Your task to perform on an android device: install app "WhatsApp Messenger" Image 0: 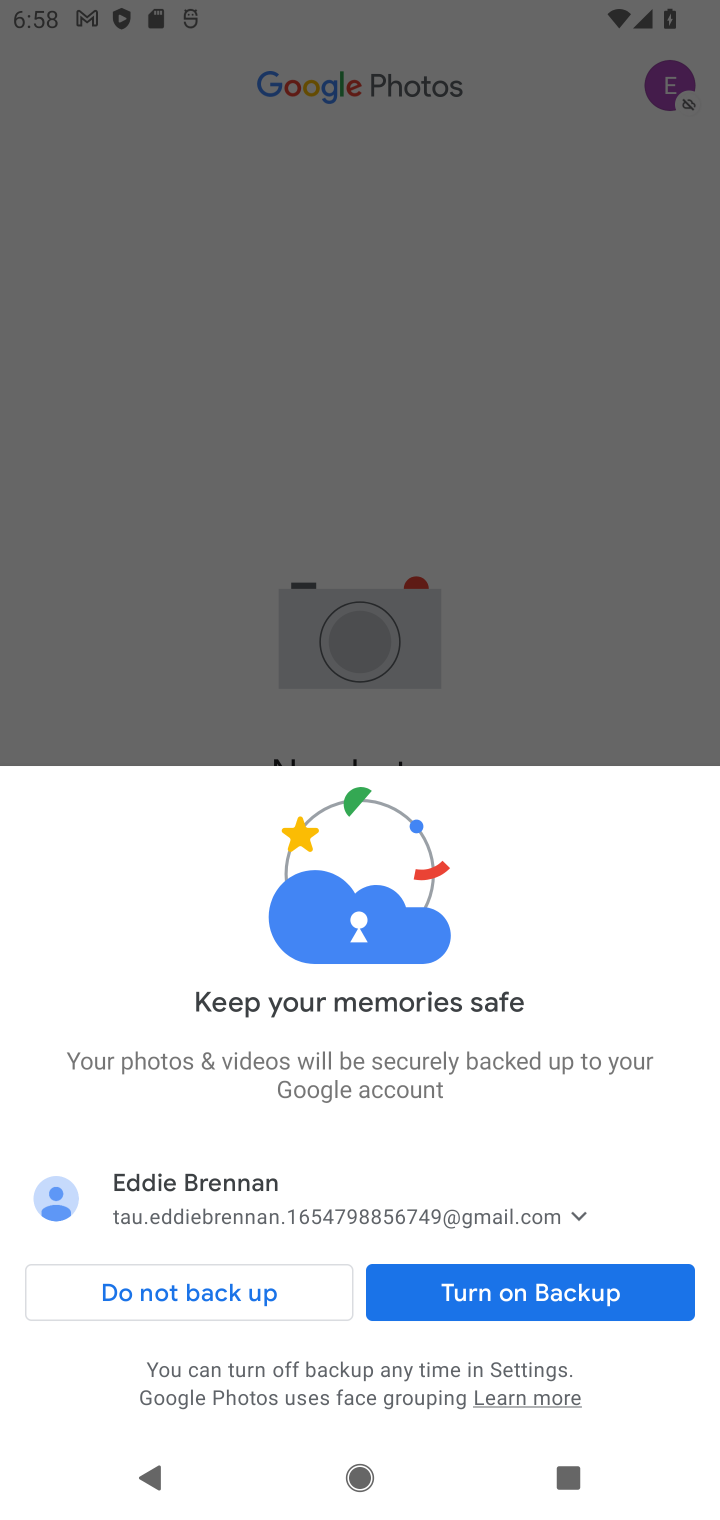
Step 0: press home button
Your task to perform on an android device: install app "WhatsApp Messenger" Image 1: 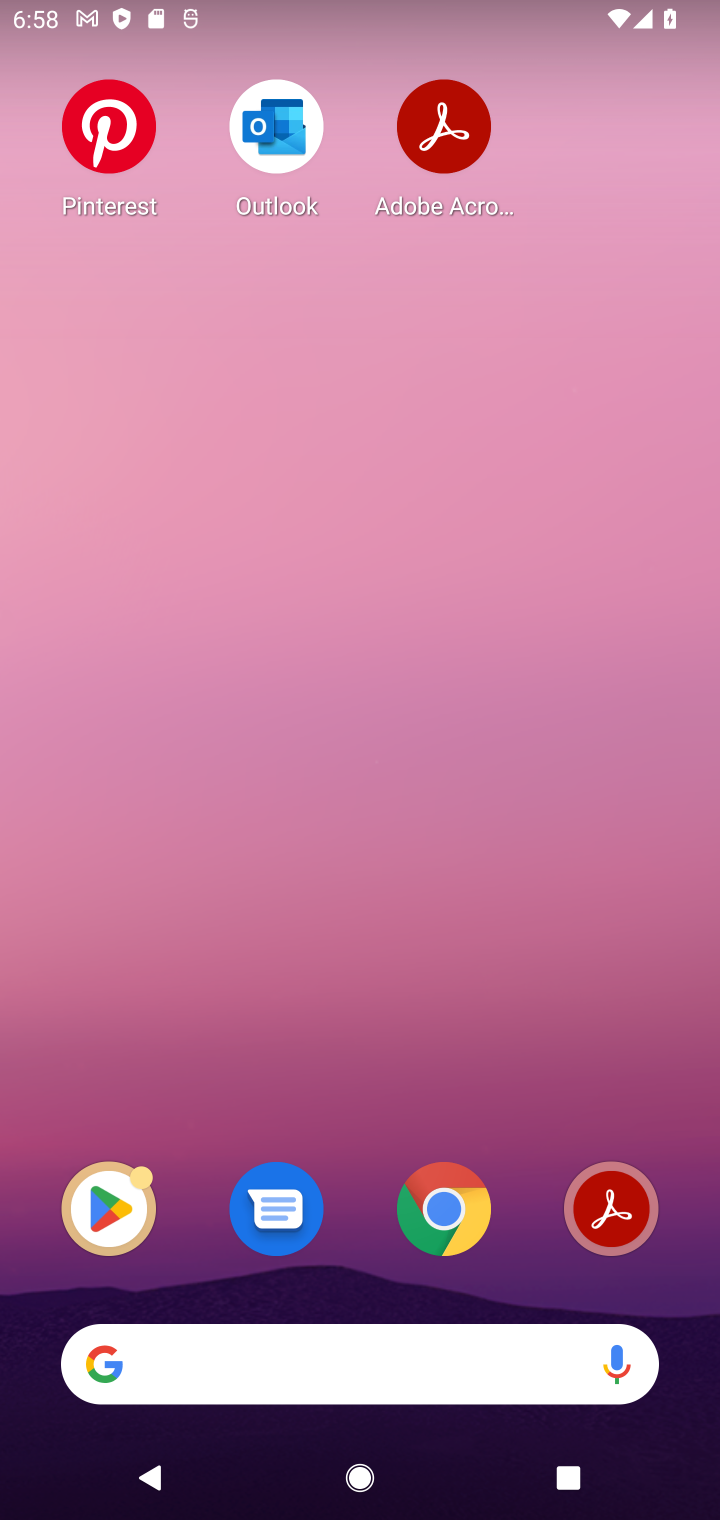
Step 1: drag from (394, 1304) to (394, 932)
Your task to perform on an android device: install app "WhatsApp Messenger" Image 2: 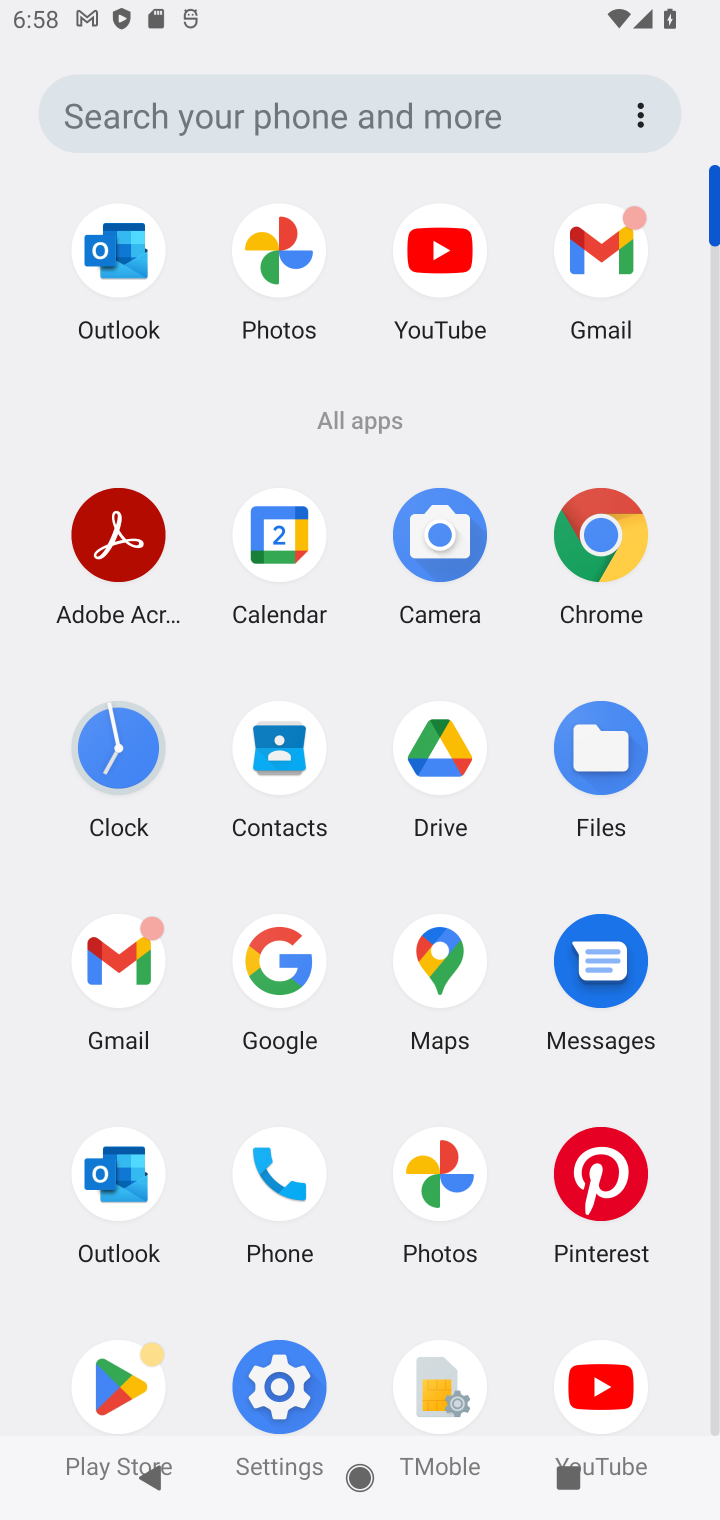
Step 2: click (107, 1387)
Your task to perform on an android device: install app "WhatsApp Messenger" Image 3: 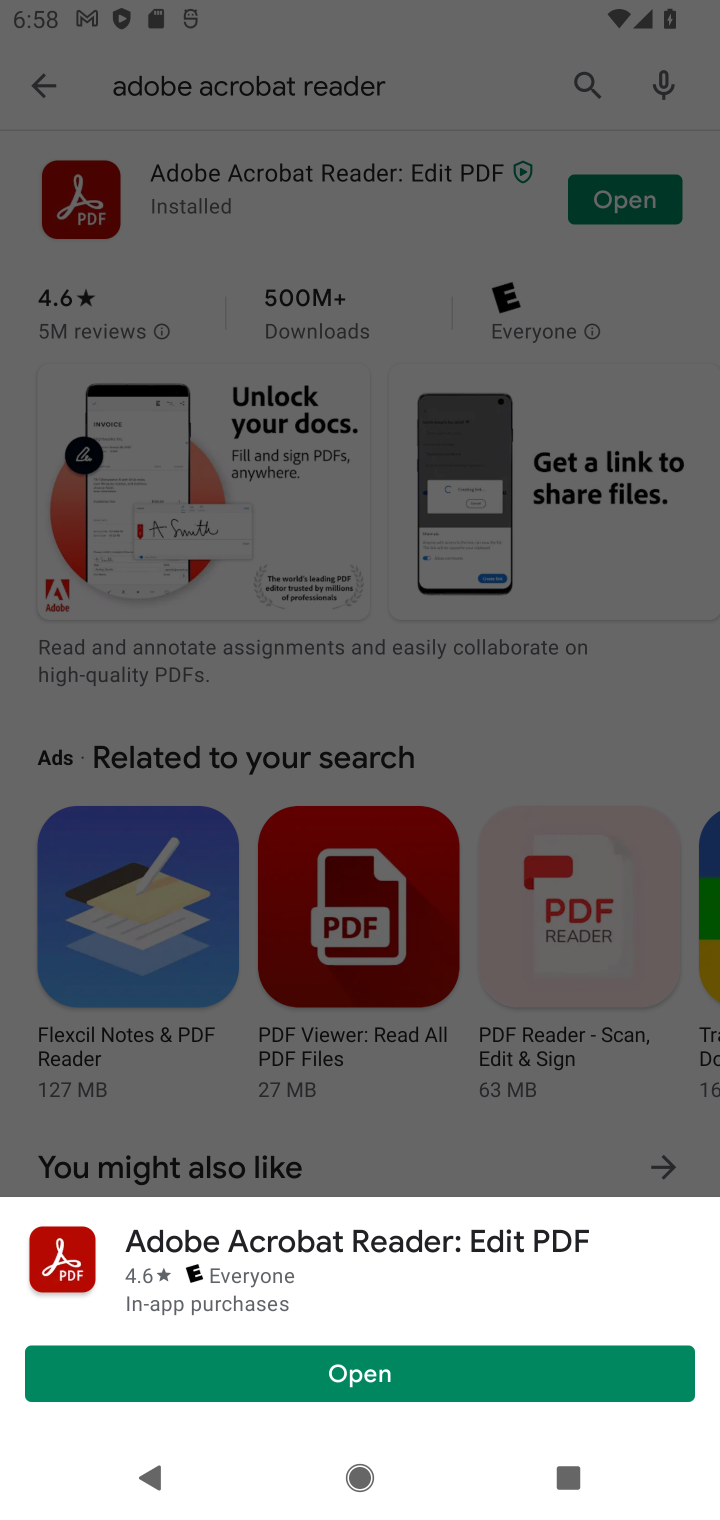
Step 3: click (578, 87)
Your task to perform on an android device: install app "WhatsApp Messenger" Image 4: 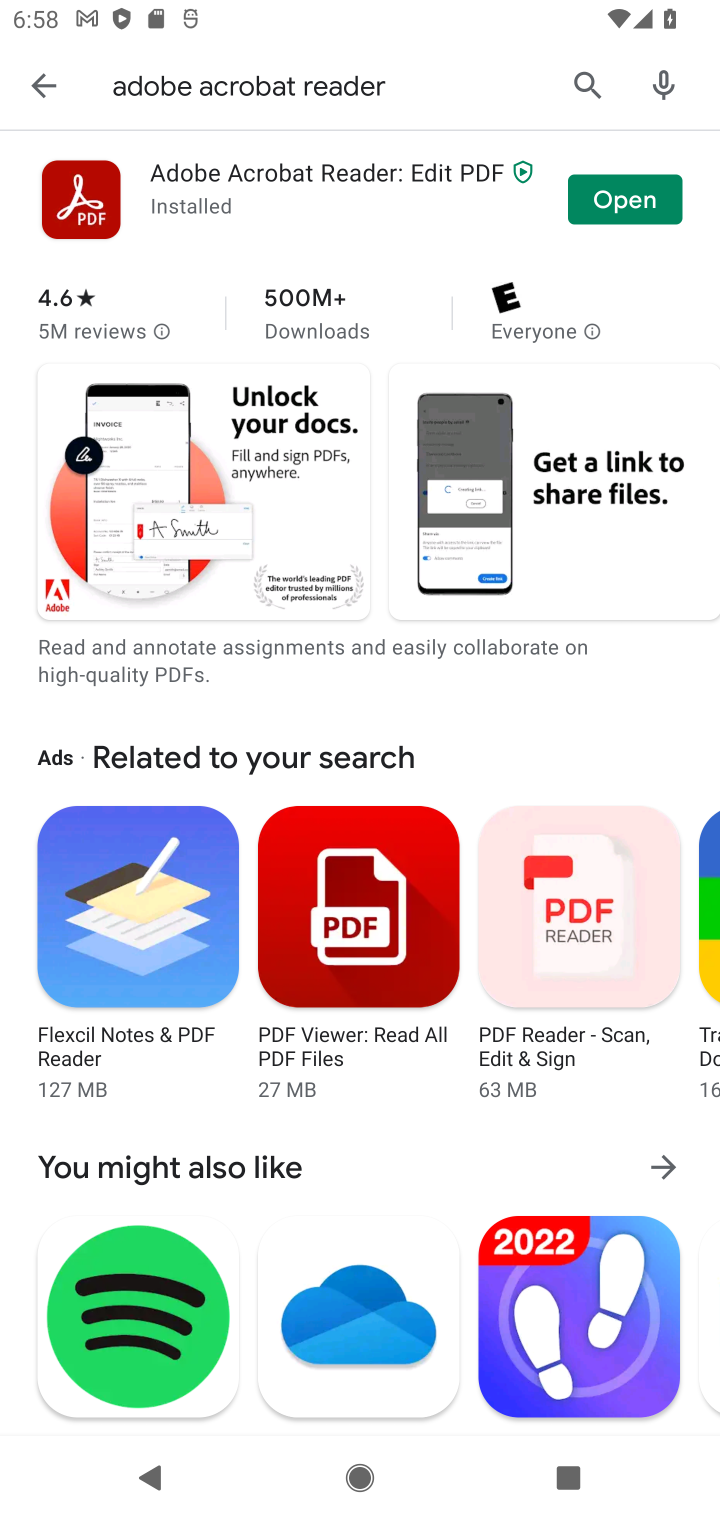
Step 4: click (578, 87)
Your task to perform on an android device: install app "WhatsApp Messenger" Image 5: 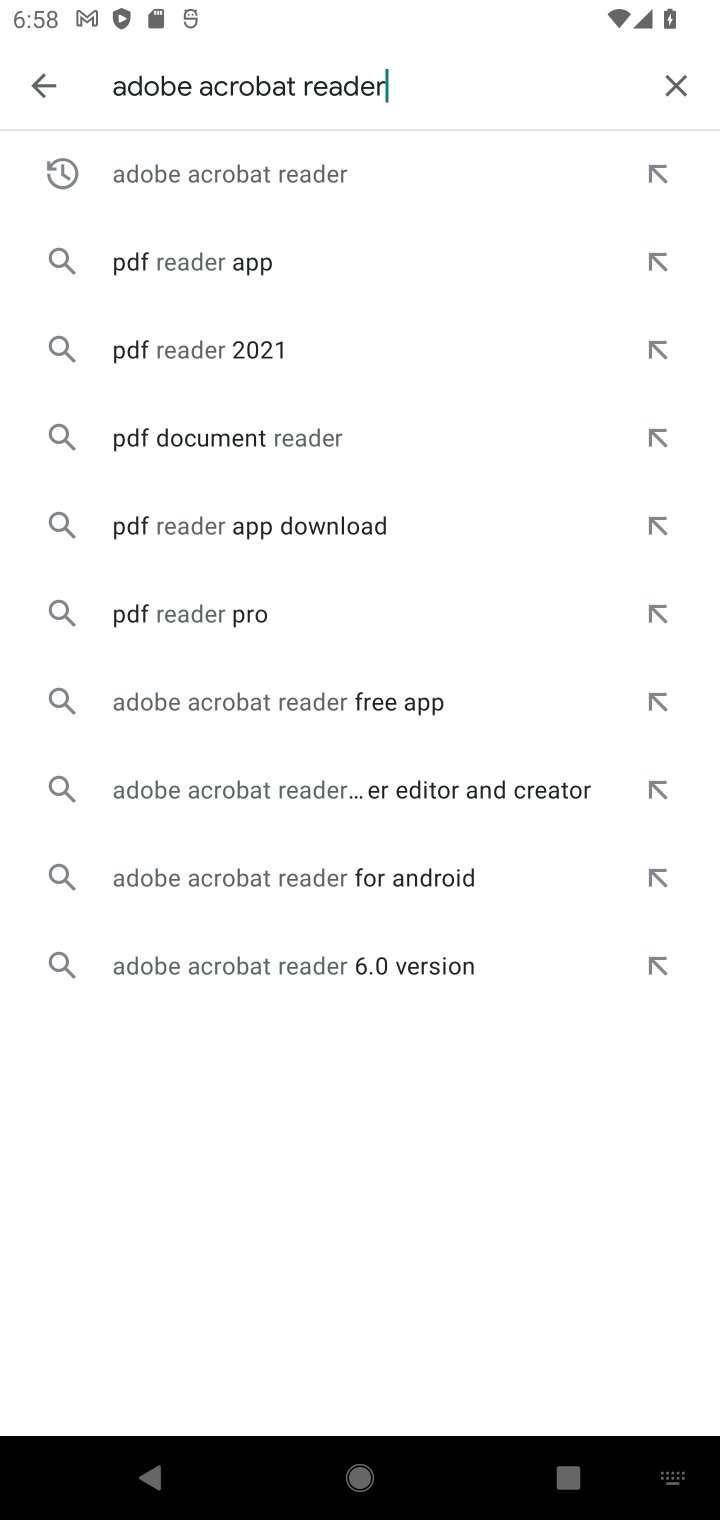
Step 5: click (679, 80)
Your task to perform on an android device: install app "WhatsApp Messenger" Image 6: 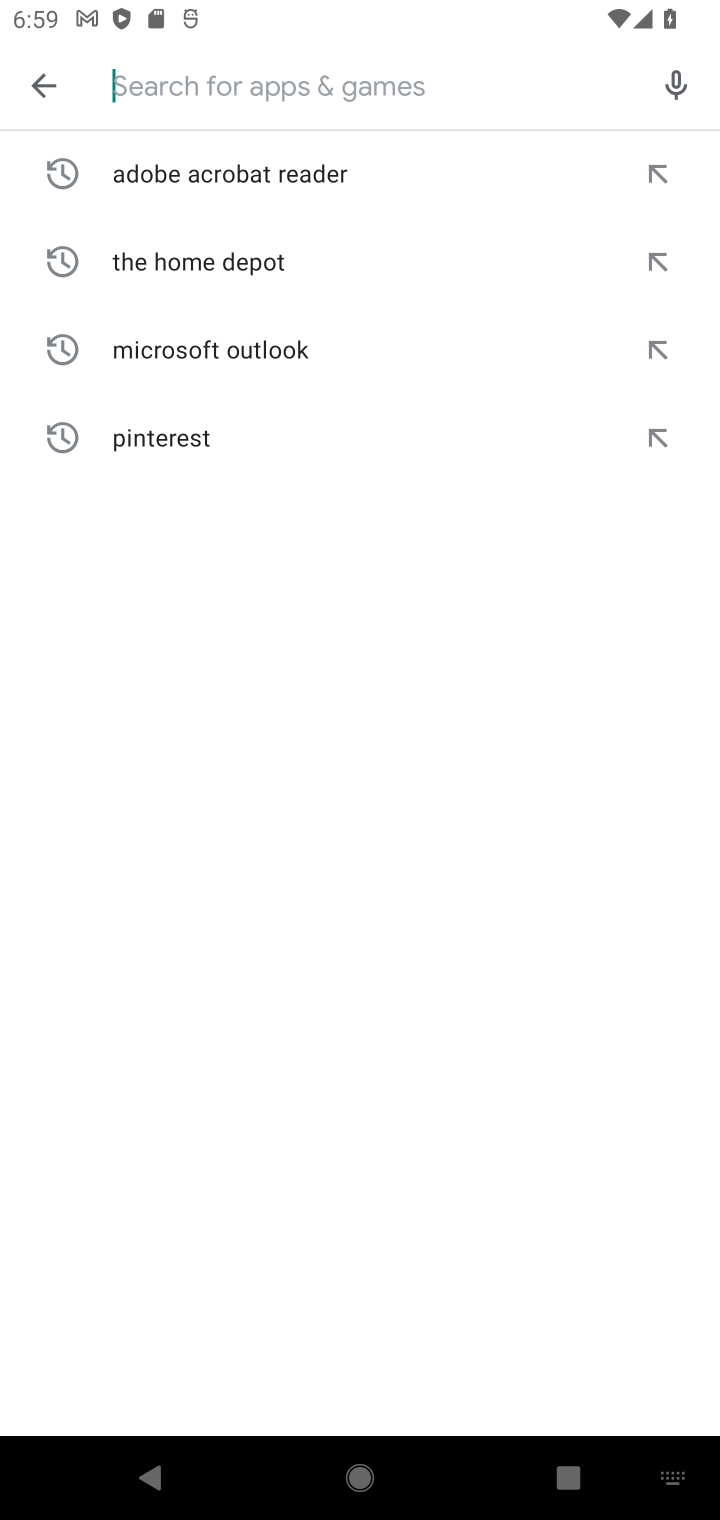
Step 6: type "WhatsApp Messenge"
Your task to perform on an android device: install app "WhatsApp Messenger" Image 7: 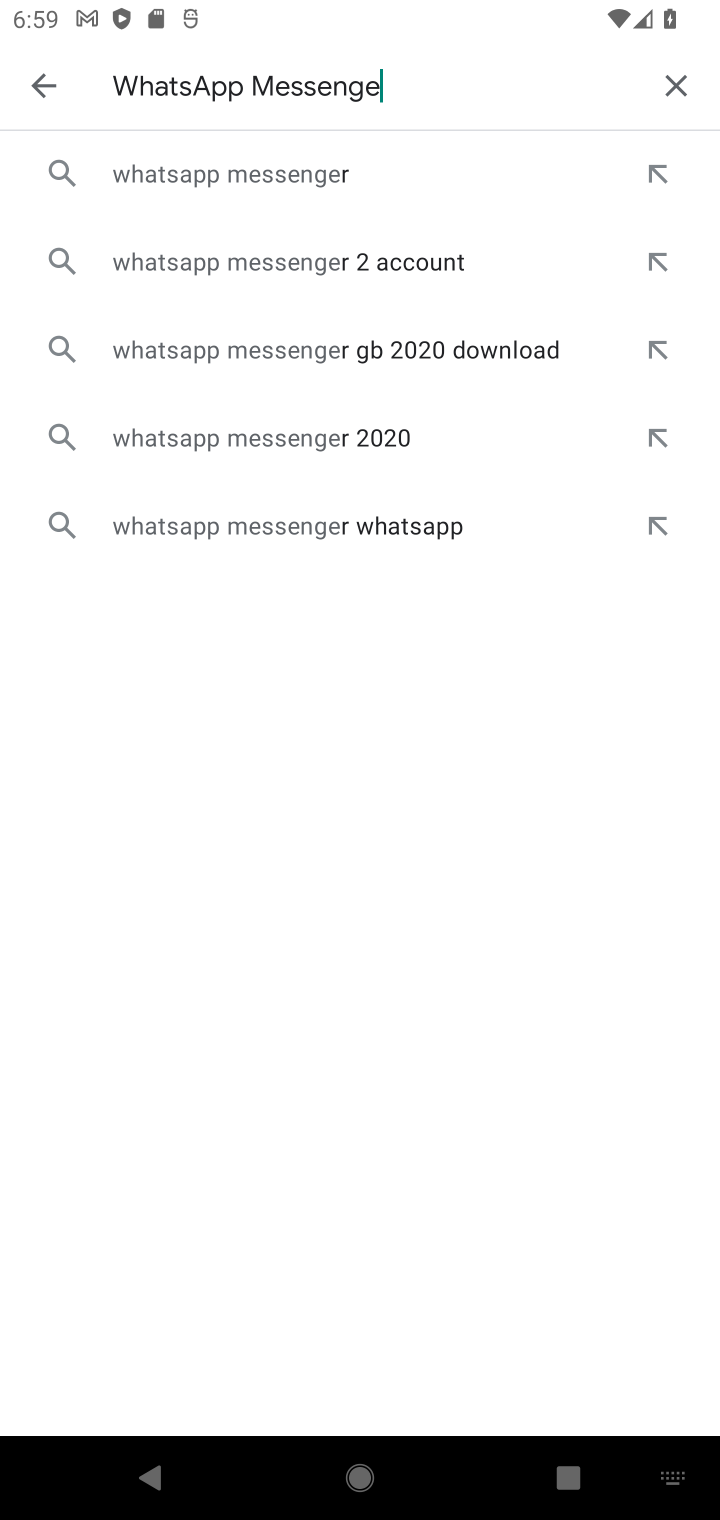
Step 7: click (302, 178)
Your task to perform on an android device: install app "WhatsApp Messenger" Image 8: 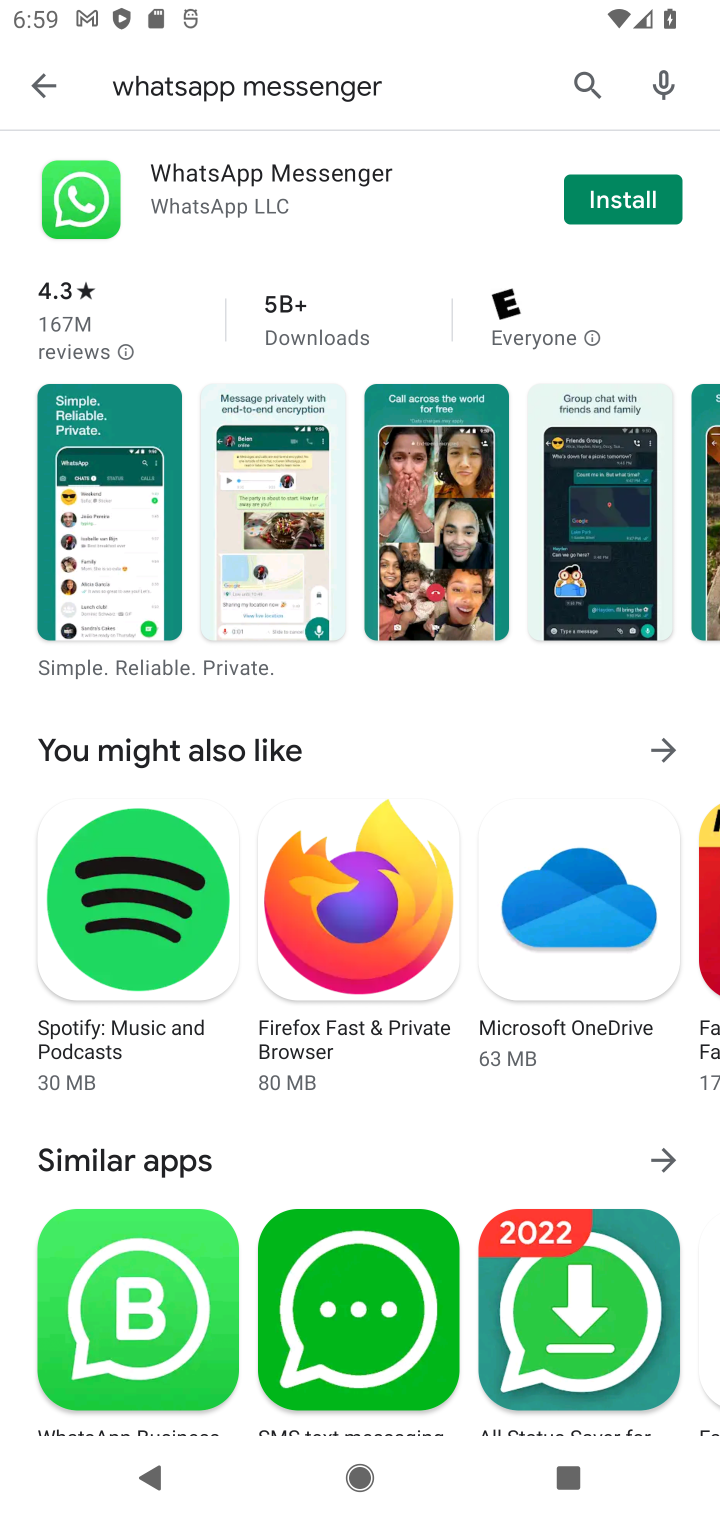
Step 8: click (613, 193)
Your task to perform on an android device: install app "WhatsApp Messenger" Image 9: 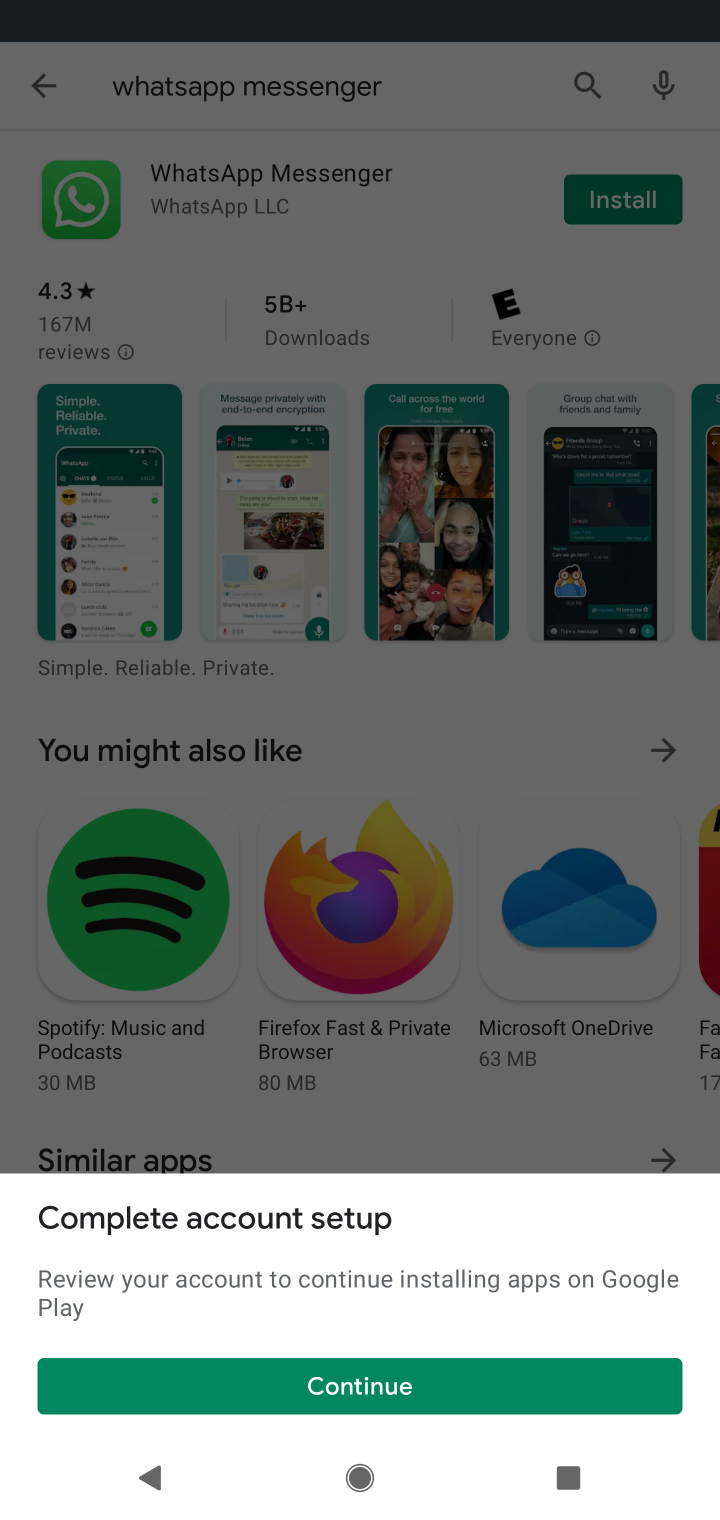
Step 9: click (331, 1397)
Your task to perform on an android device: install app "WhatsApp Messenger" Image 10: 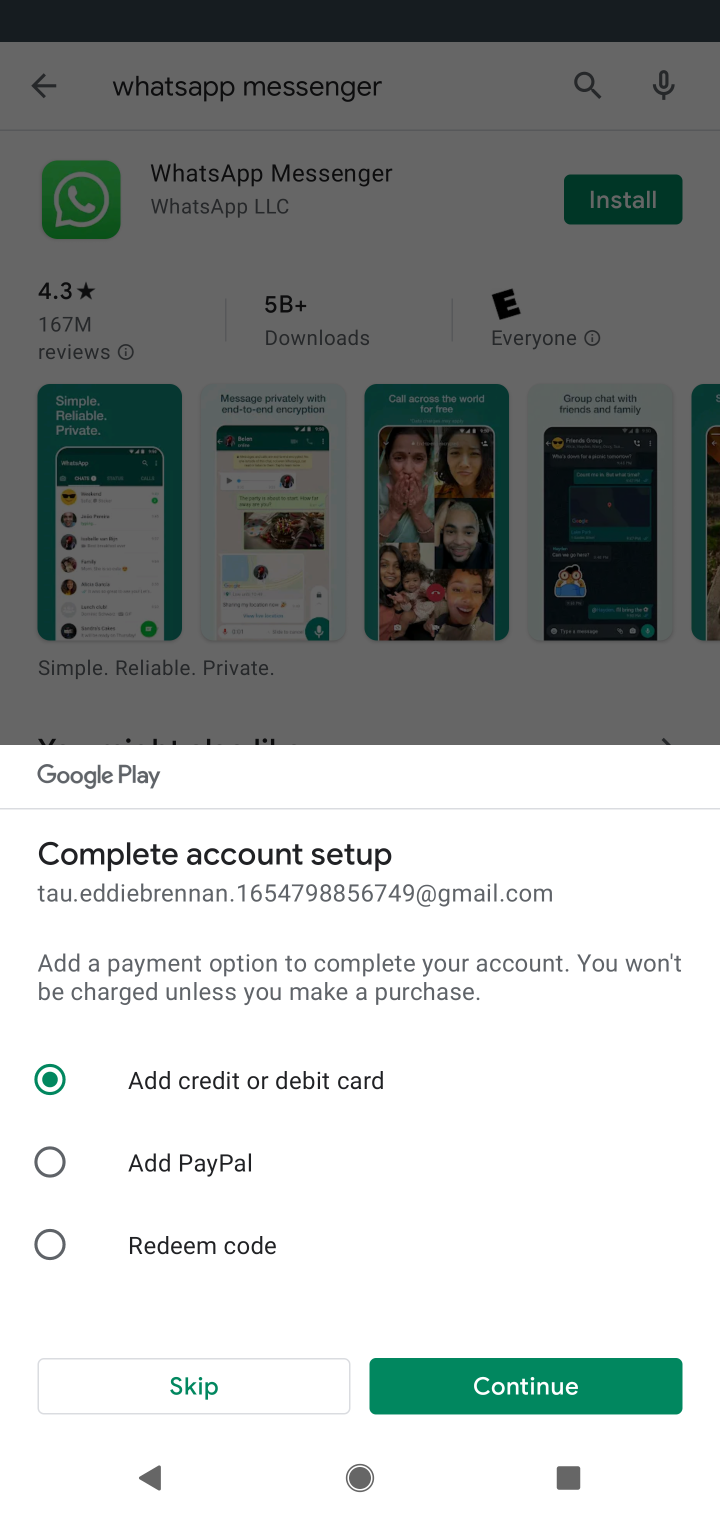
Step 10: click (168, 1385)
Your task to perform on an android device: install app "WhatsApp Messenger" Image 11: 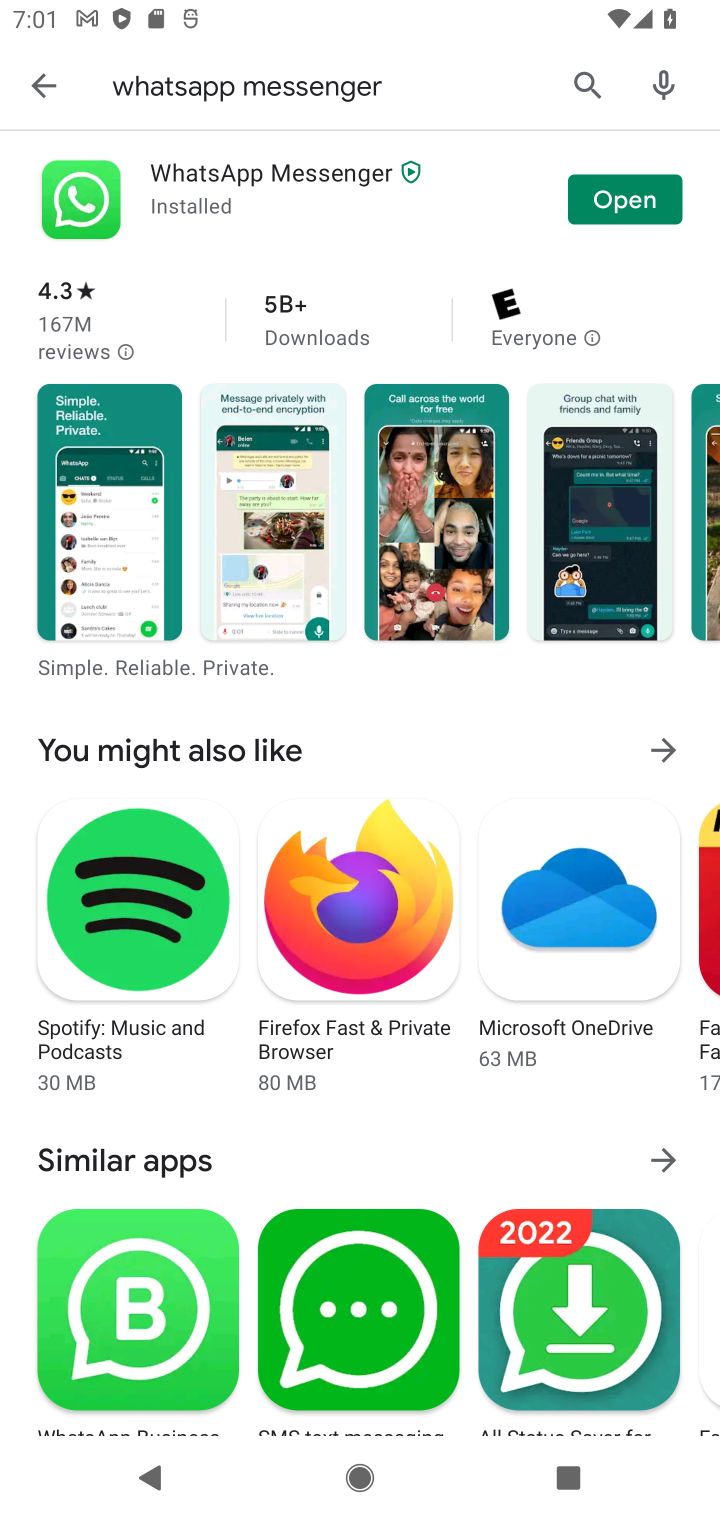
Step 11: task complete